Your task to perform on an android device: set an alarm Image 0: 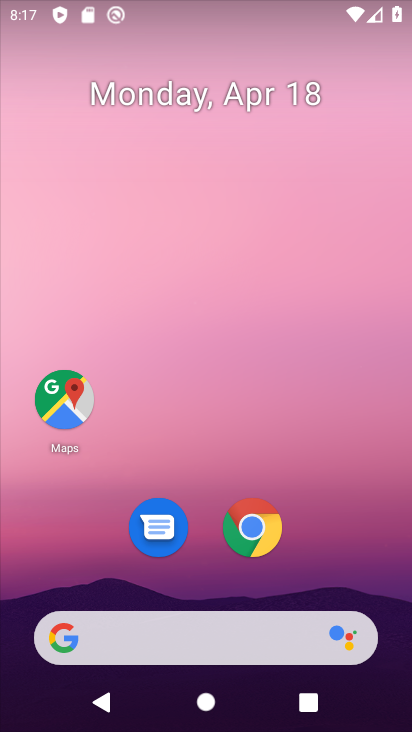
Step 0: drag from (172, 604) to (282, 102)
Your task to perform on an android device: set an alarm Image 1: 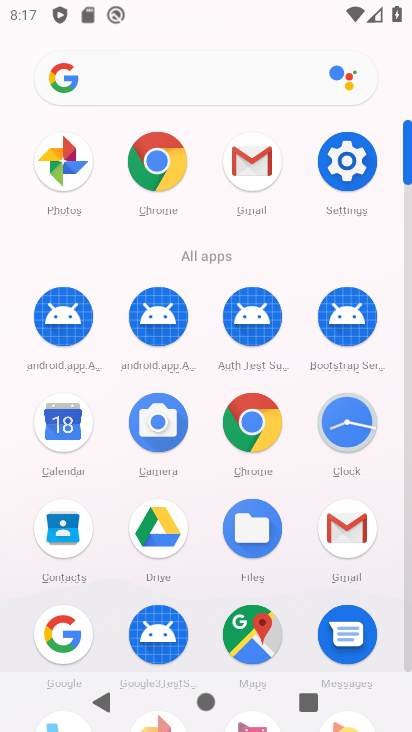
Step 1: click (368, 438)
Your task to perform on an android device: set an alarm Image 2: 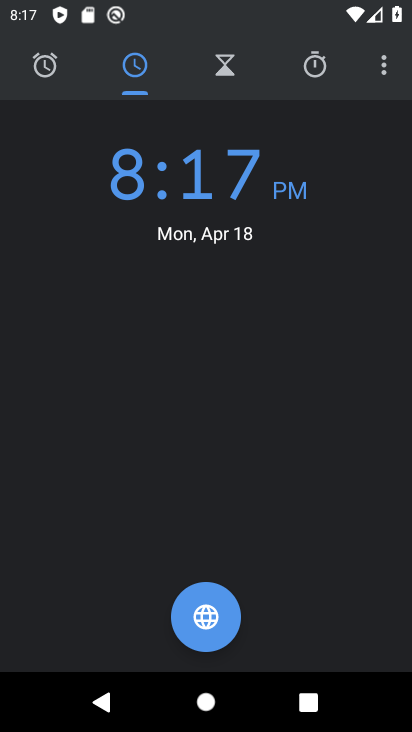
Step 2: click (39, 63)
Your task to perform on an android device: set an alarm Image 3: 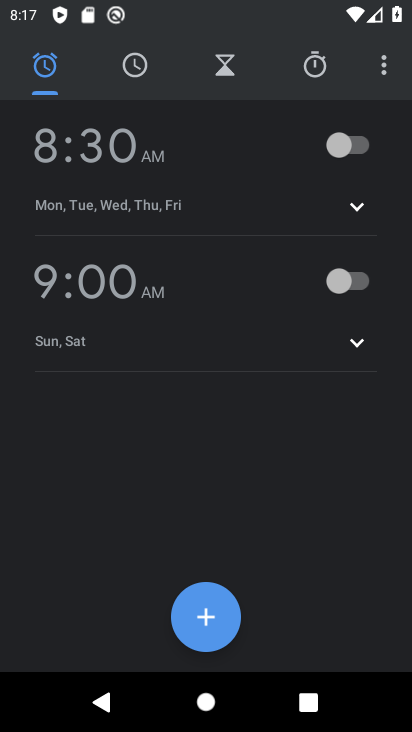
Step 3: click (358, 130)
Your task to perform on an android device: set an alarm Image 4: 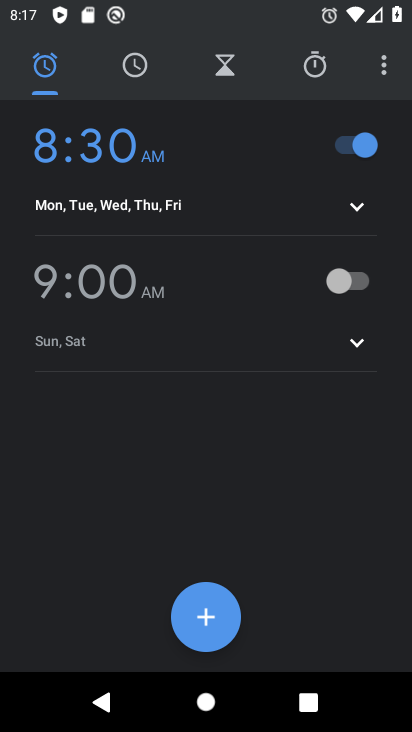
Step 4: task complete